Your task to perform on an android device: Open CNN.com Image 0: 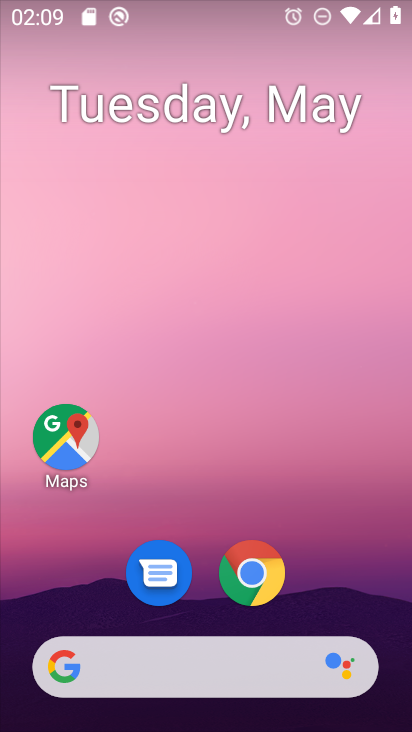
Step 0: click (260, 673)
Your task to perform on an android device: Open CNN.com Image 1: 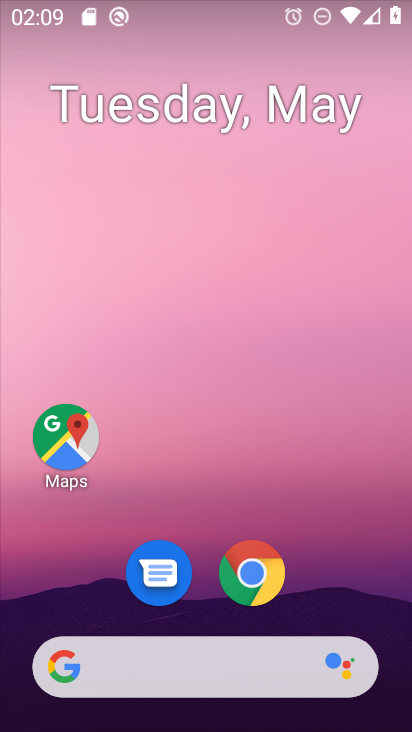
Step 1: click (230, 664)
Your task to perform on an android device: Open CNN.com Image 2: 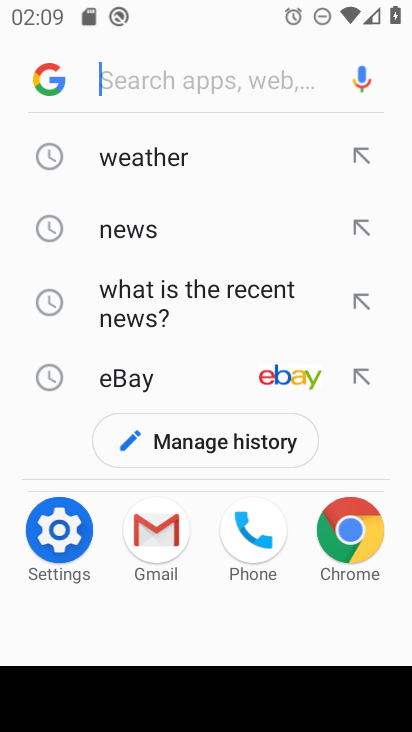
Step 2: type "cnn.com"
Your task to perform on an android device: Open CNN.com Image 3: 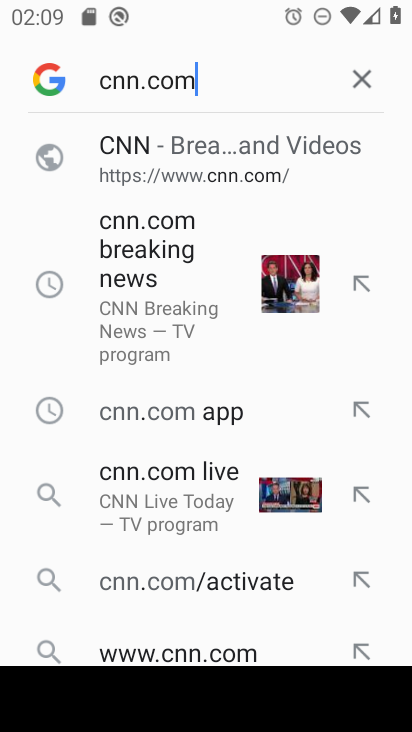
Step 3: click (226, 163)
Your task to perform on an android device: Open CNN.com Image 4: 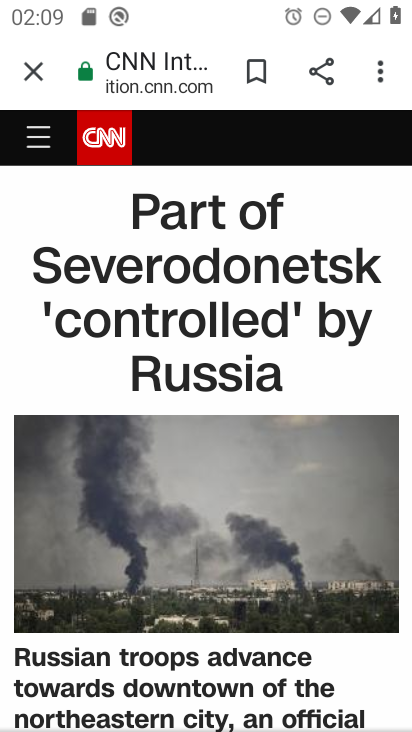
Step 4: task complete